Your task to perform on an android device: Search for acer predator on ebay, select the first entry, add it to the cart, then select checkout. Image 0: 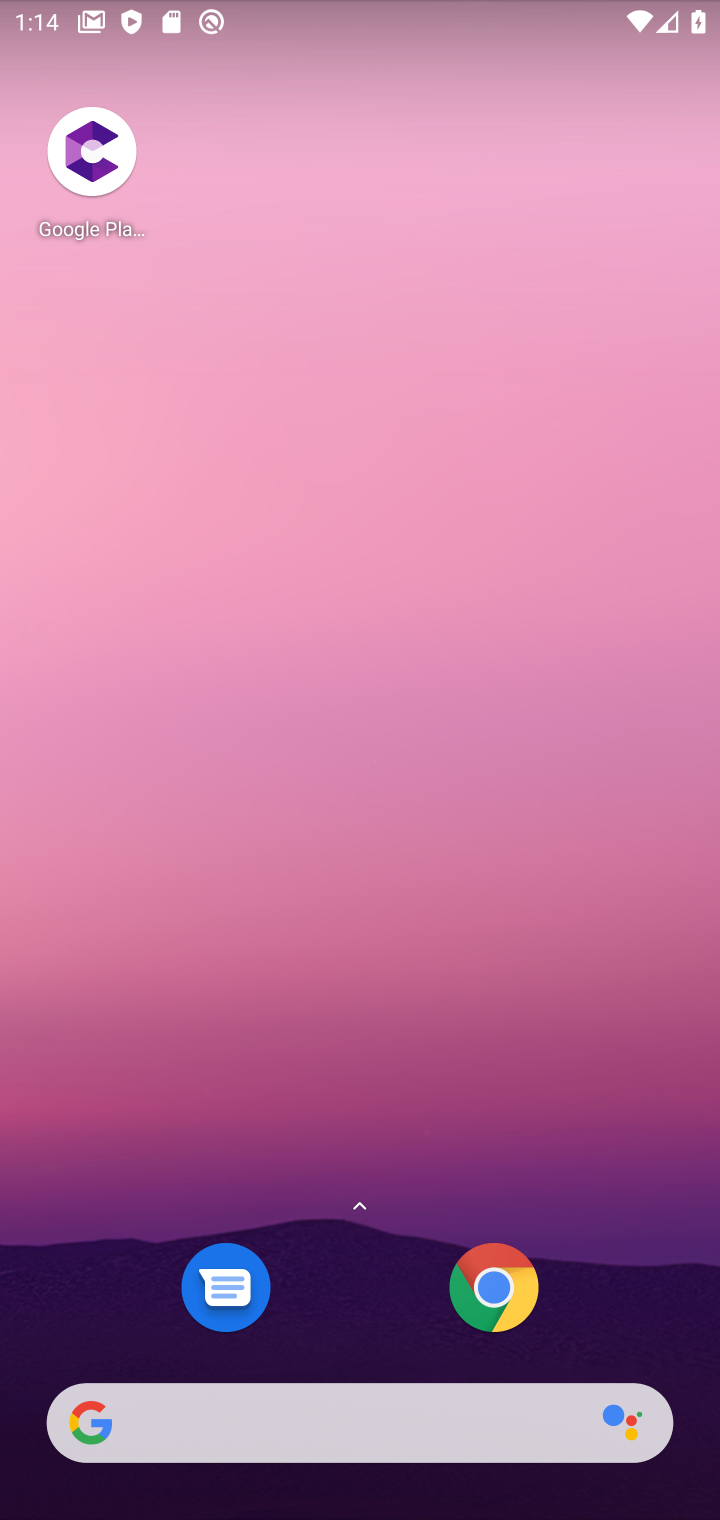
Step 0: drag from (361, 1348) to (280, 222)
Your task to perform on an android device: Search for acer predator on ebay, select the first entry, add it to the cart, then select checkout. Image 1: 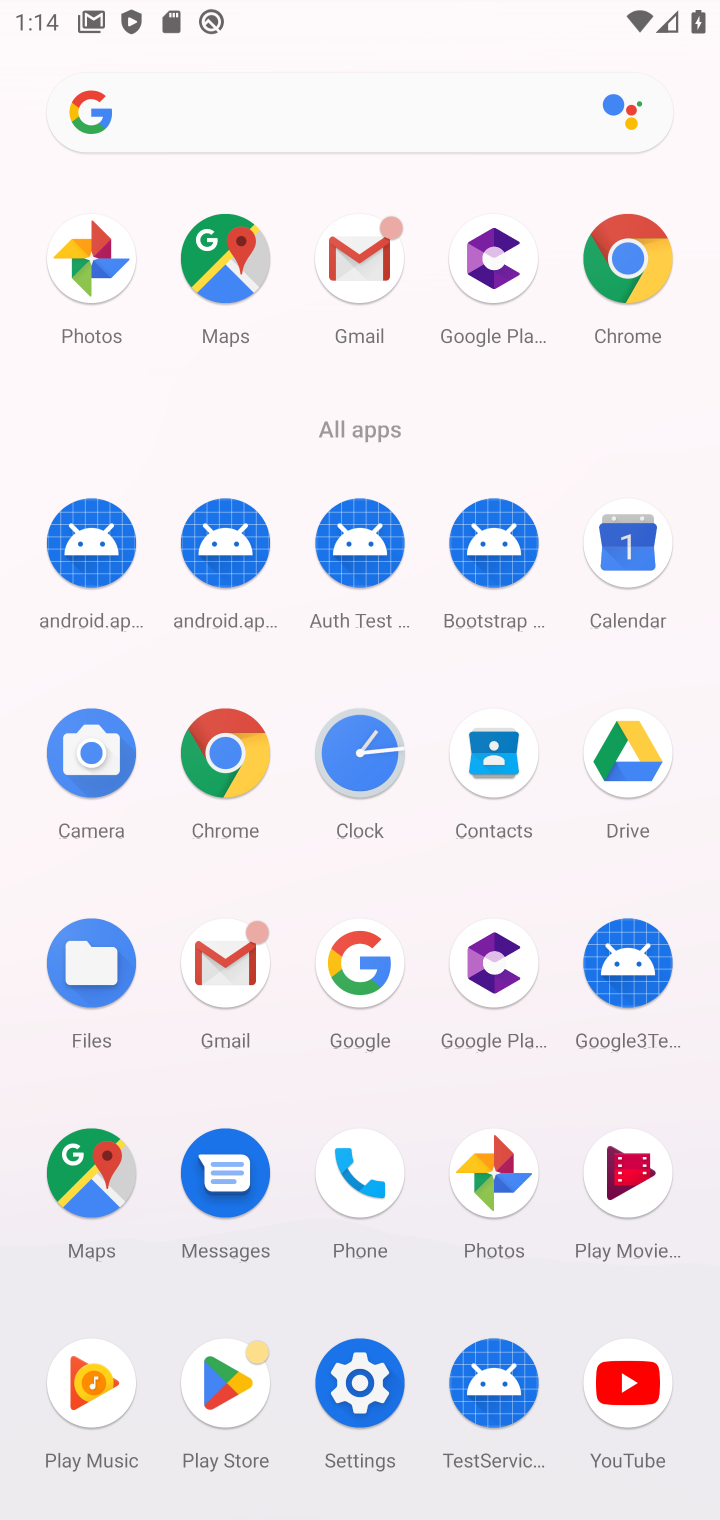
Step 1: click (627, 257)
Your task to perform on an android device: Search for acer predator on ebay, select the first entry, add it to the cart, then select checkout. Image 2: 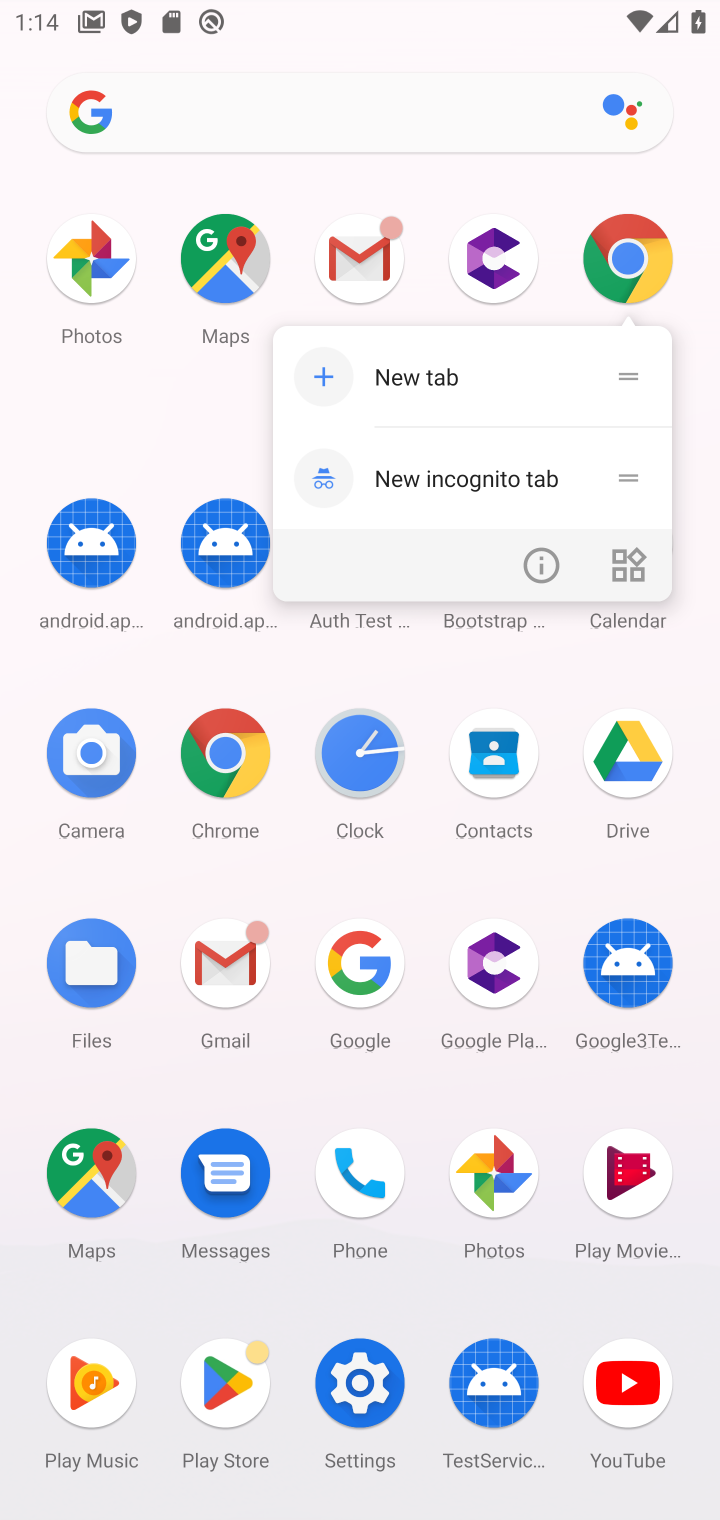
Step 2: click (611, 276)
Your task to perform on an android device: Search for acer predator on ebay, select the first entry, add it to the cart, then select checkout. Image 3: 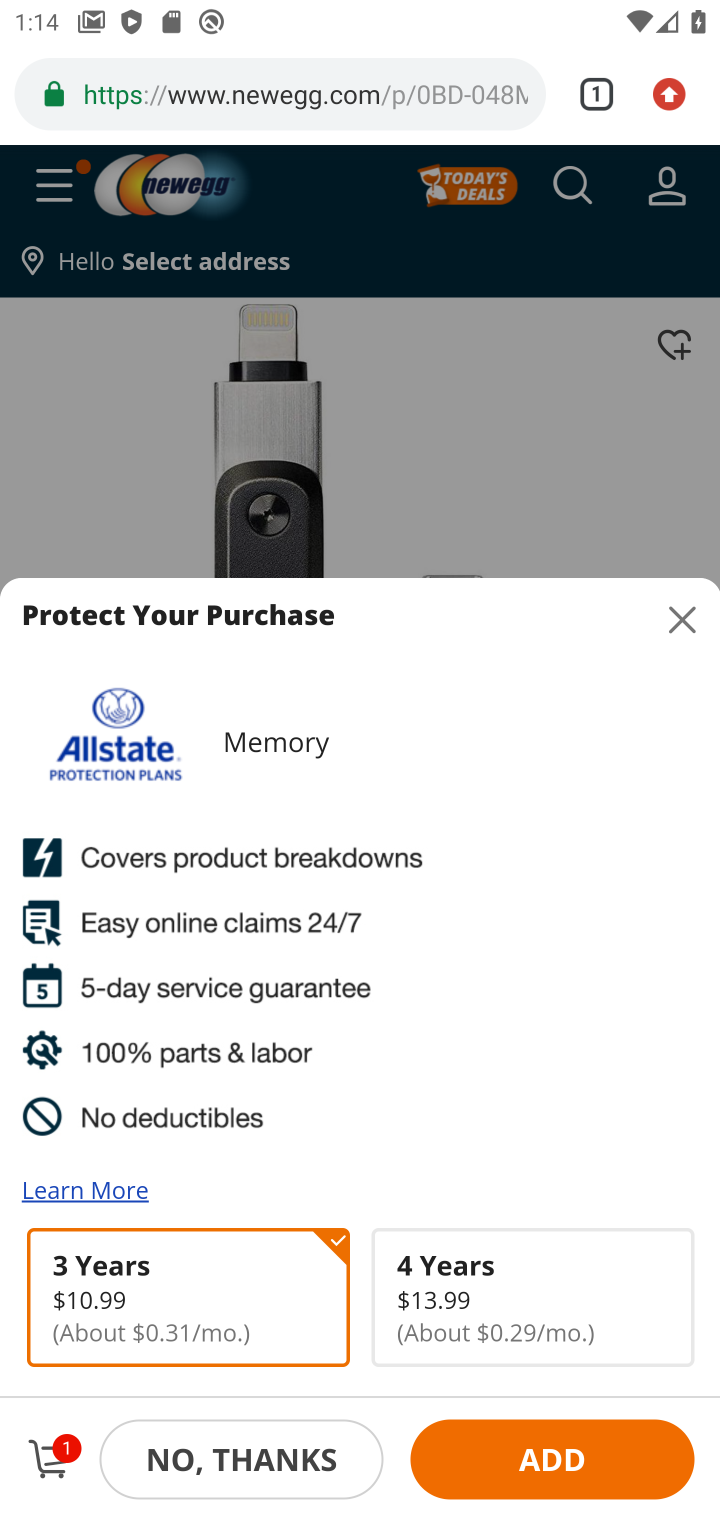
Step 3: click (255, 103)
Your task to perform on an android device: Search for acer predator on ebay, select the first entry, add it to the cart, then select checkout. Image 4: 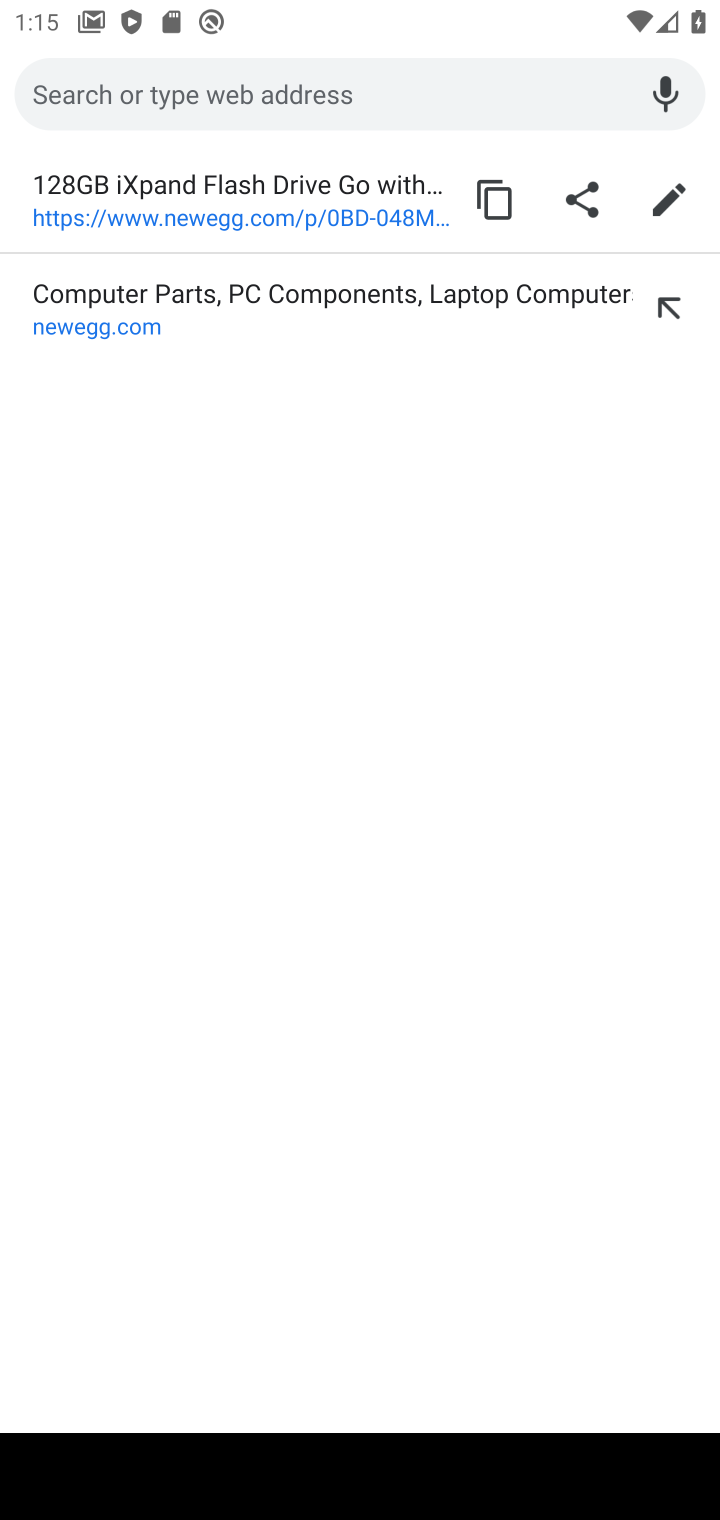
Step 4: type "ebay.com"
Your task to perform on an android device: Search for acer predator on ebay, select the first entry, add it to the cart, then select checkout. Image 5: 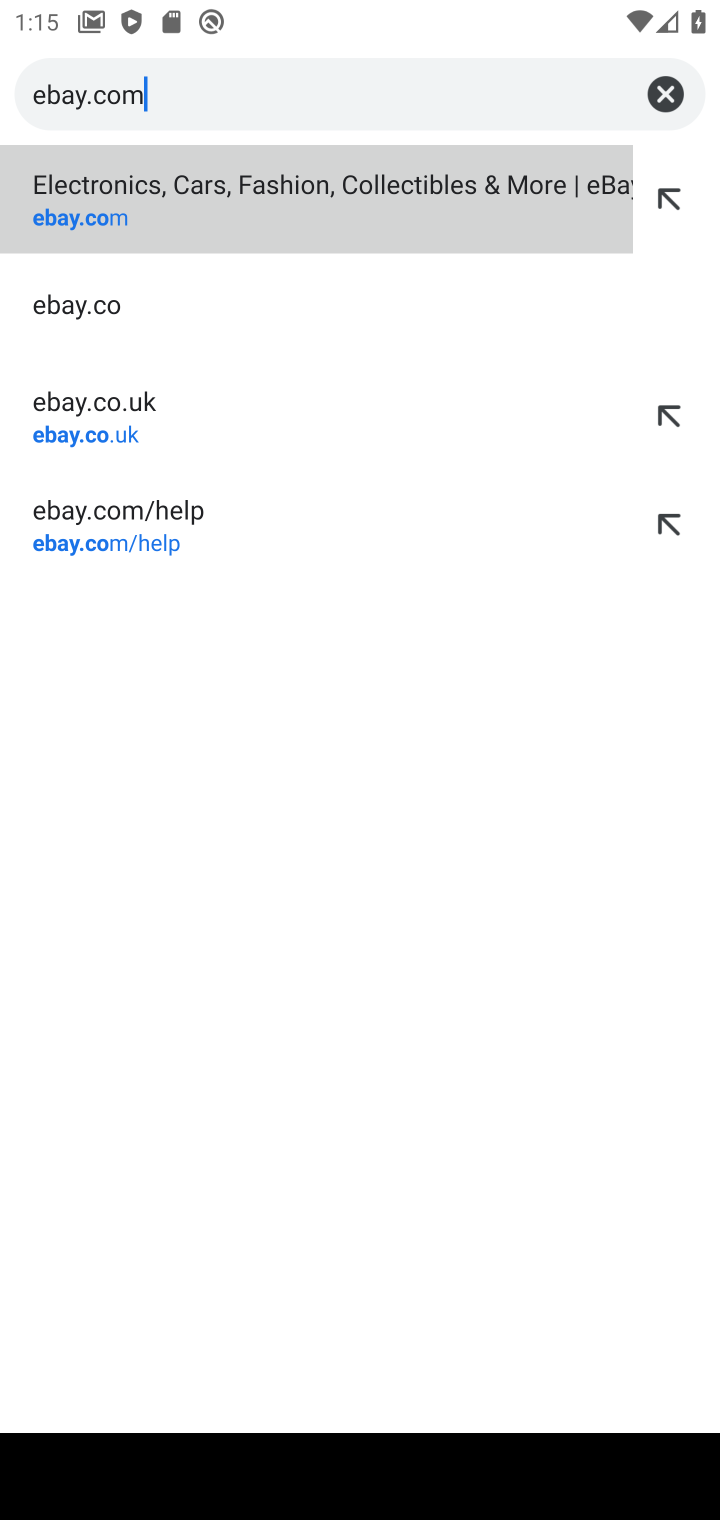
Step 5: press enter
Your task to perform on an android device: Search for acer predator on ebay, select the first entry, add it to the cart, then select checkout. Image 6: 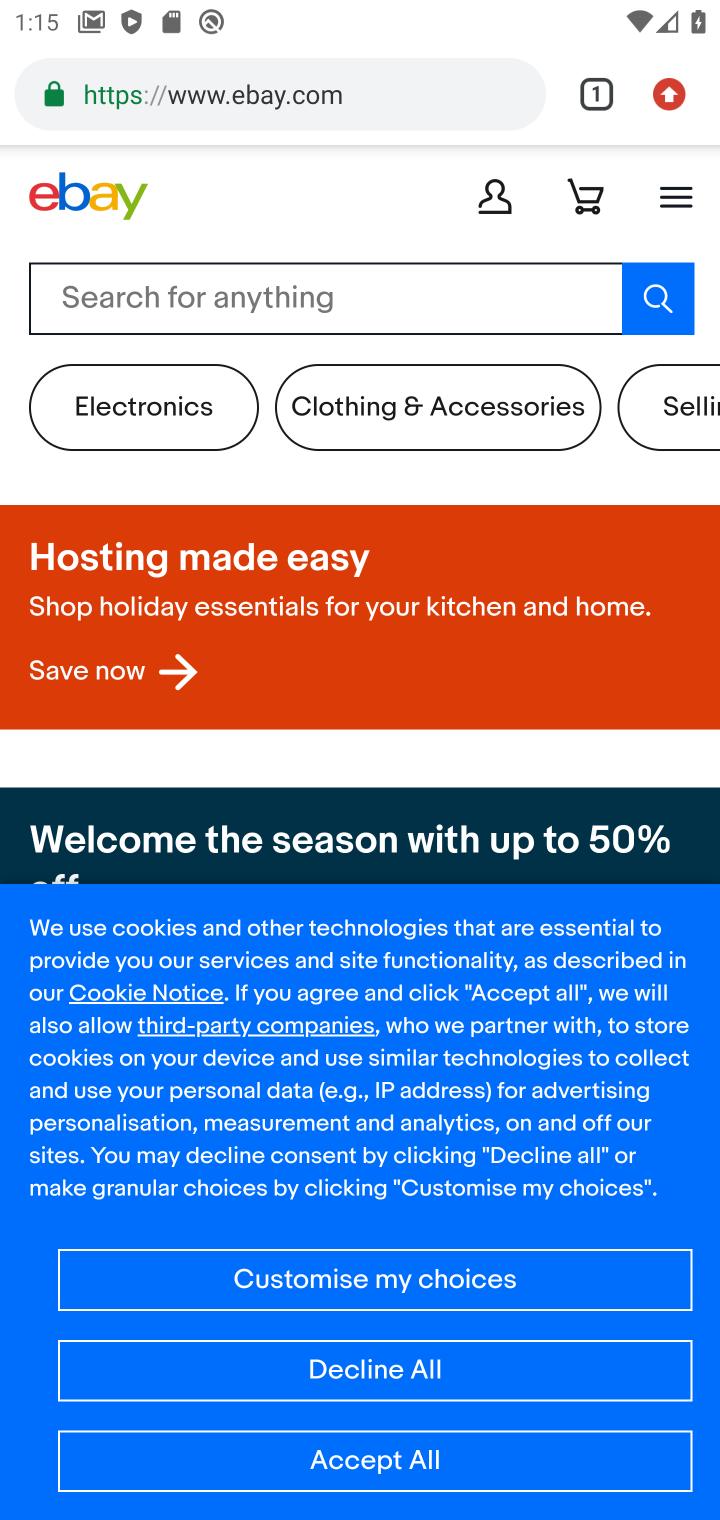
Step 6: click (402, 281)
Your task to perform on an android device: Search for acer predator on ebay, select the first entry, add it to the cart, then select checkout. Image 7: 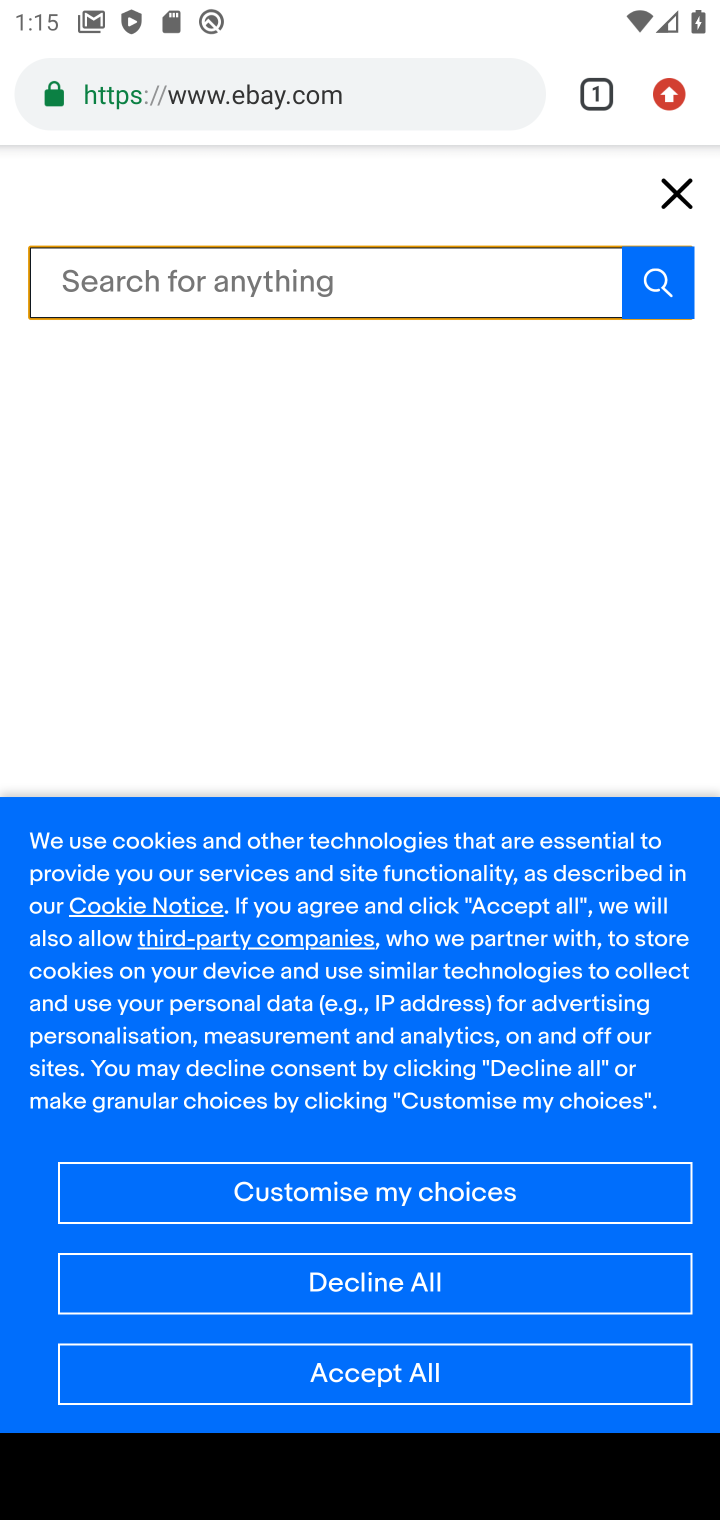
Step 7: type "acer predator"
Your task to perform on an android device: Search for acer predator on ebay, select the first entry, add it to the cart, then select checkout. Image 8: 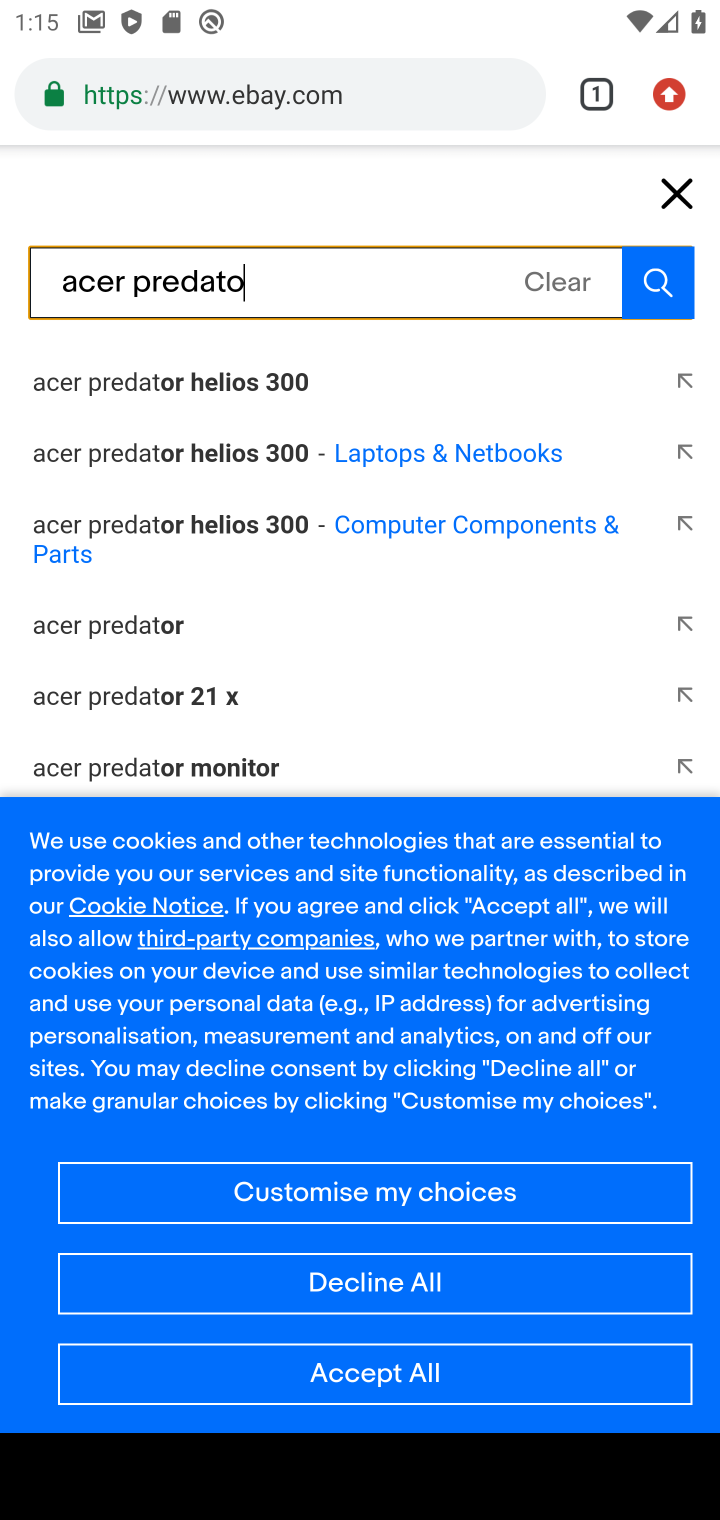
Step 8: press enter
Your task to perform on an android device: Search for acer predator on ebay, select the first entry, add it to the cart, then select checkout. Image 9: 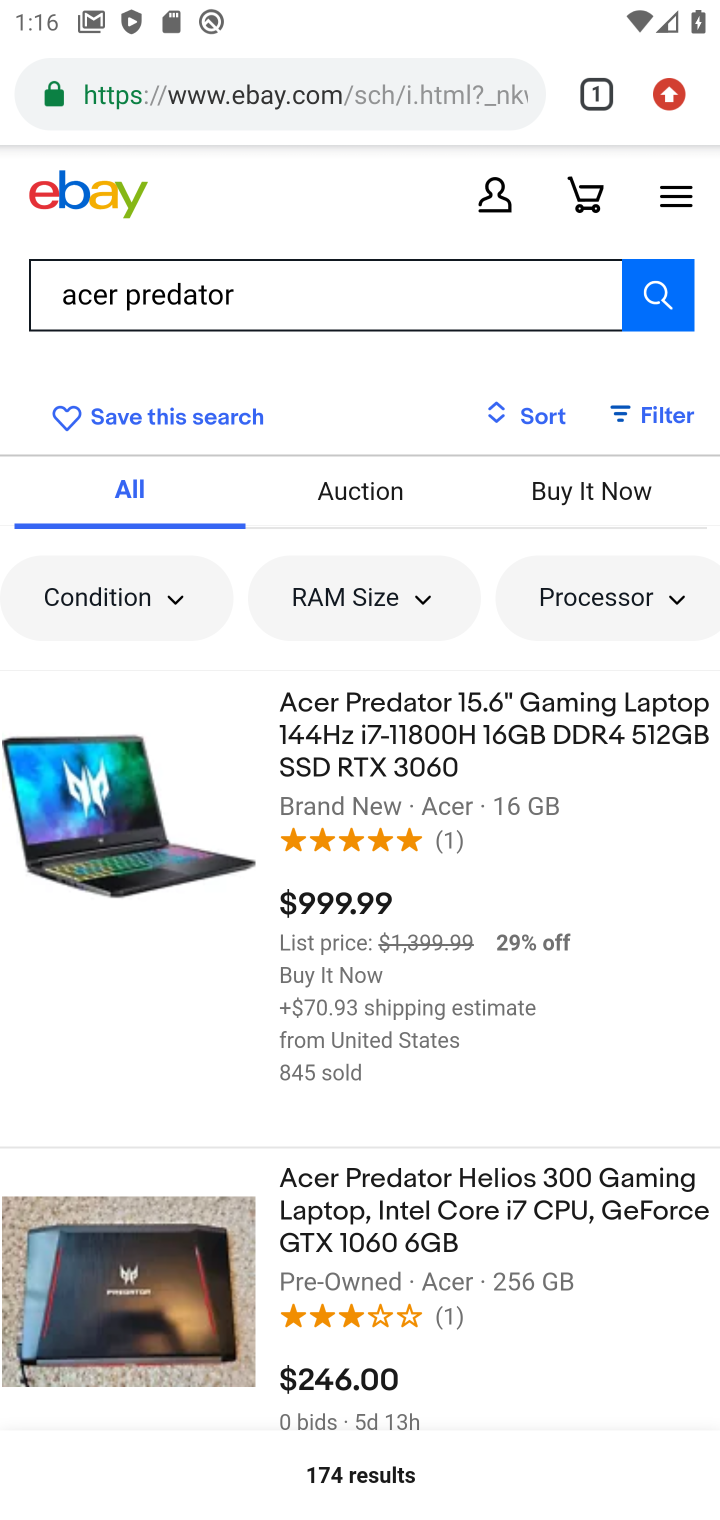
Step 9: click (176, 834)
Your task to perform on an android device: Search for acer predator on ebay, select the first entry, add it to the cart, then select checkout. Image 10: 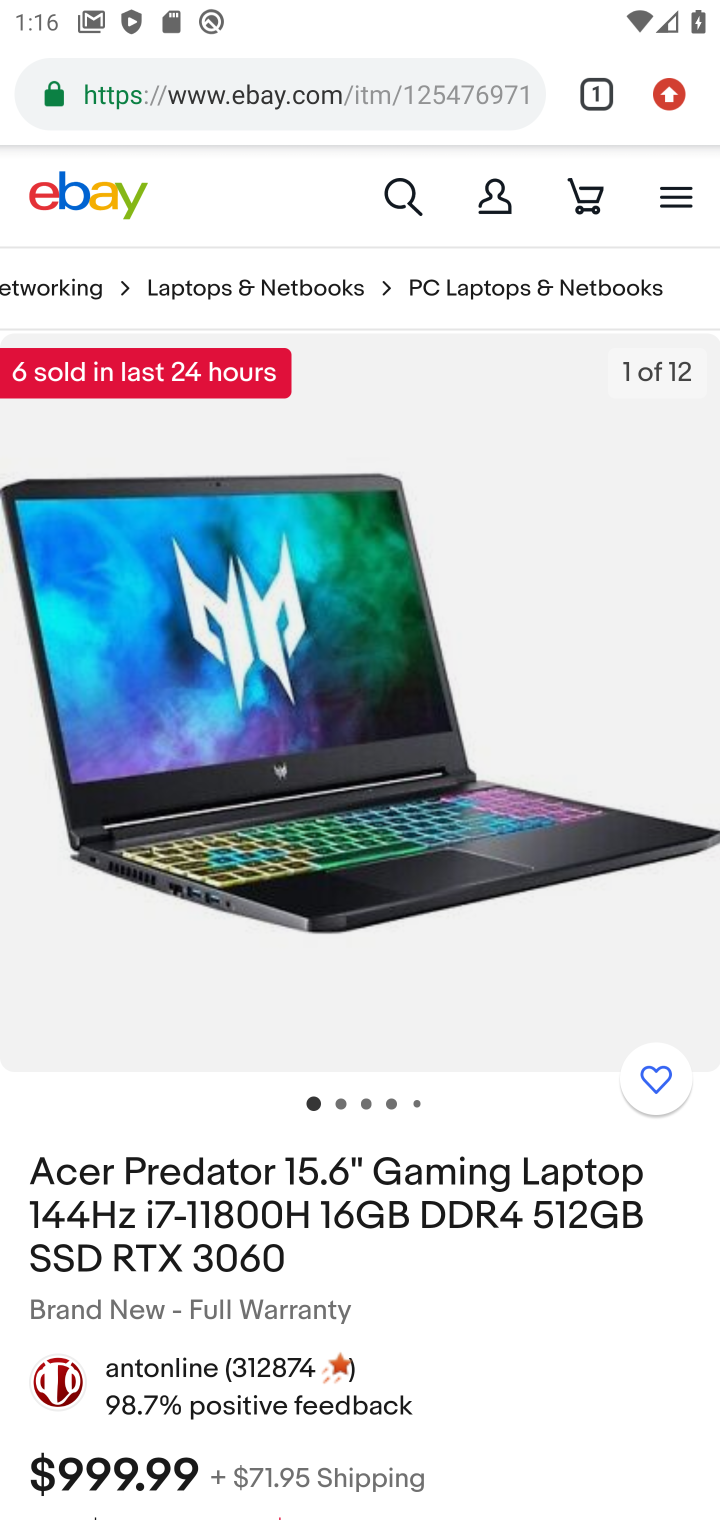
Step 10: drag from (307, 951) to (478, 394)
Your task to perform on an android device: Search for acer predator on ebay, select the first entry, add it to the cart, then select checkout. Image 11: 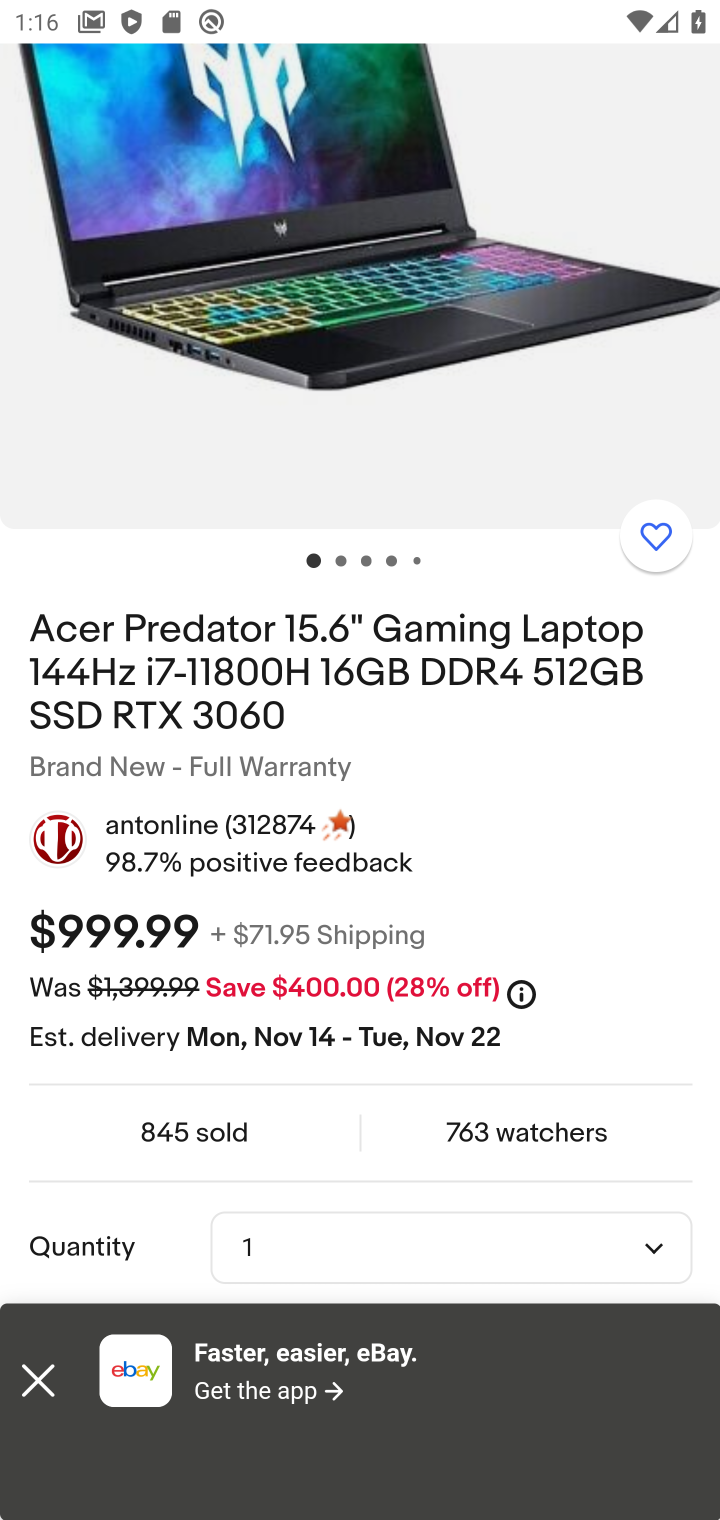
Step 11: drag from (180, 1167) to (304, 444)
Your task to perform on an android device: Search for acer predator on ebay, select the first entry, add it to the cart, then select checkout. Image 12: 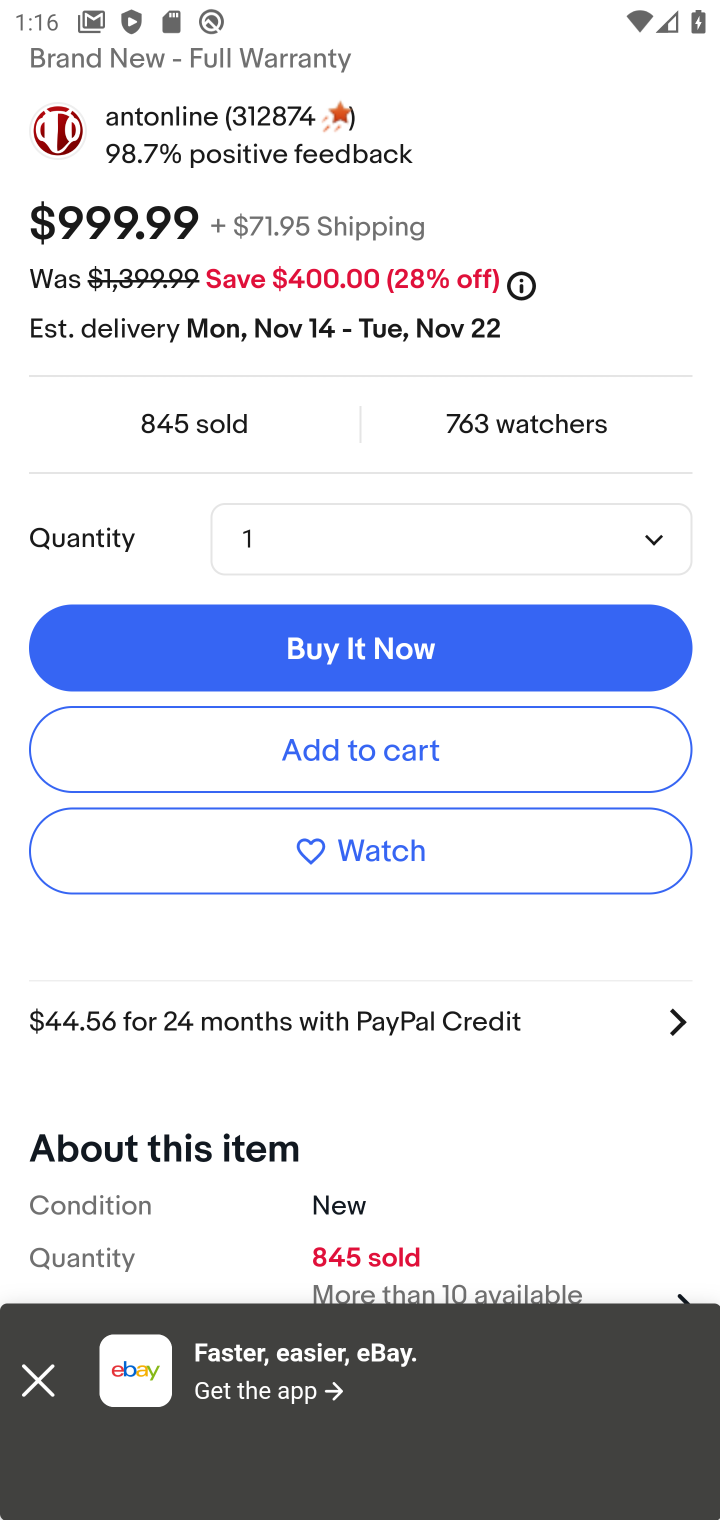
Step 12: click (376, 760)
Your task to perform on an android device: Search for acer predator on ebay, select the first entry, add it to the cart, then select checkout. Image 13: 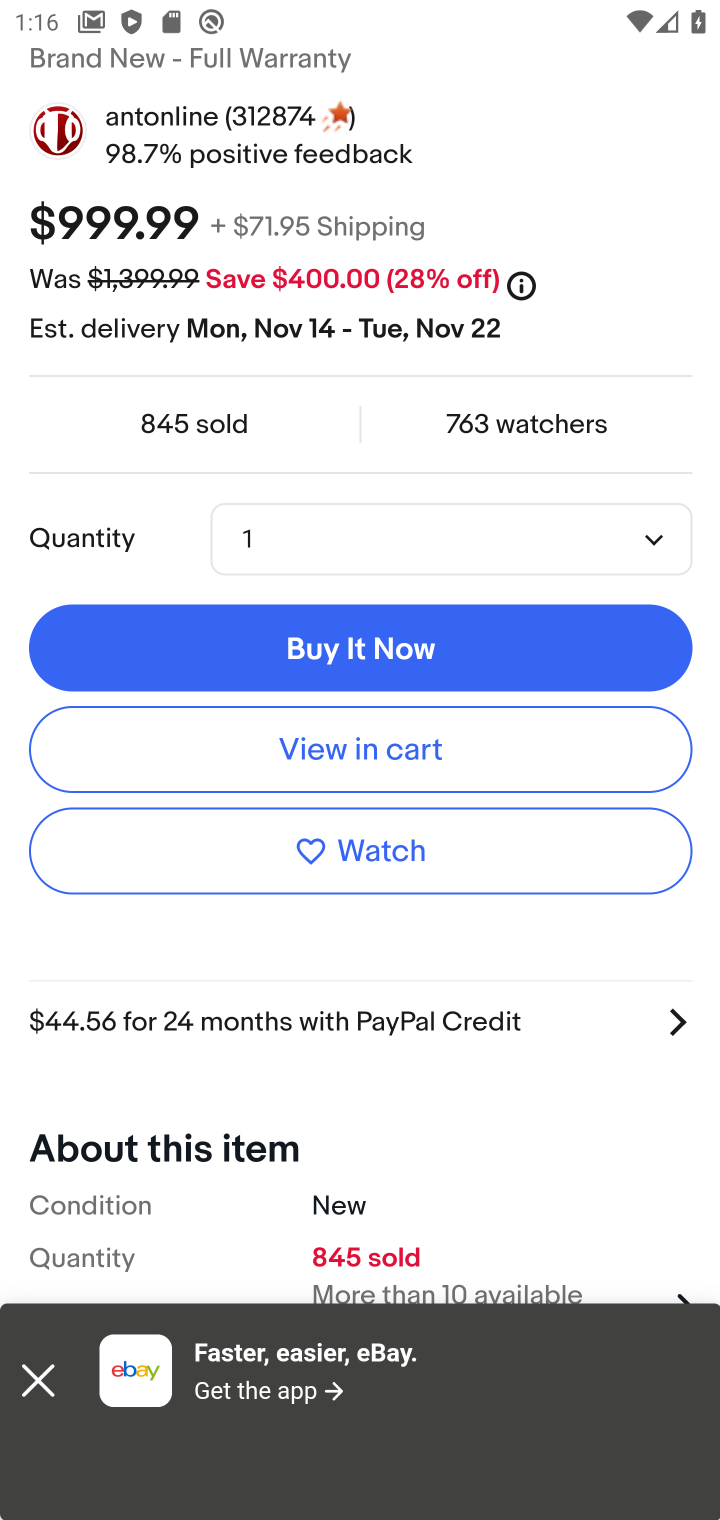
Step 13: click (357, 750)
Your task to perform on an android device: Search for acer predator on ebay, select the first entry, add it to the cart, then select checkout. Image 14: 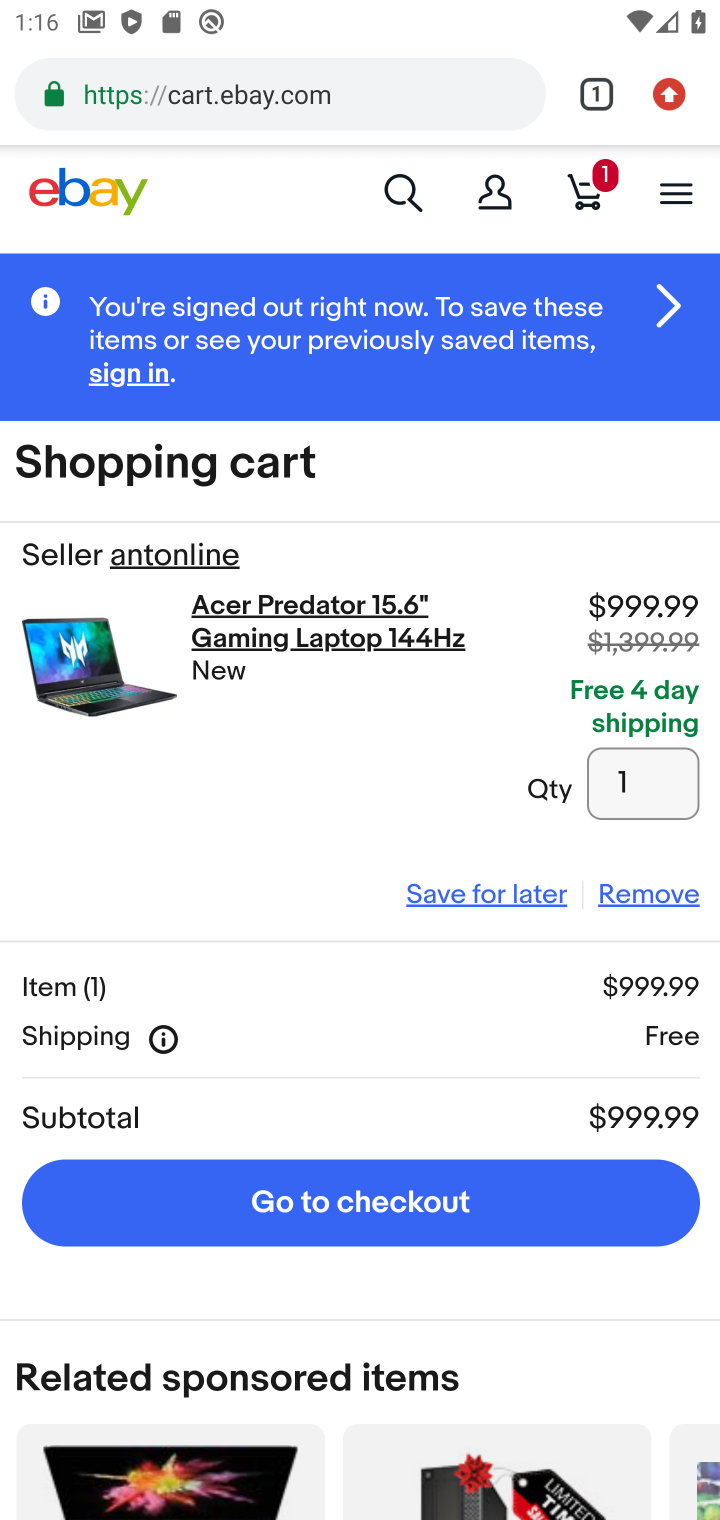
Step 14: click (479, 1169)
Your task to perform on an android device: Search for acer predator on ebay, select the first entry, add it to the cart, then select checkout. Image 15: 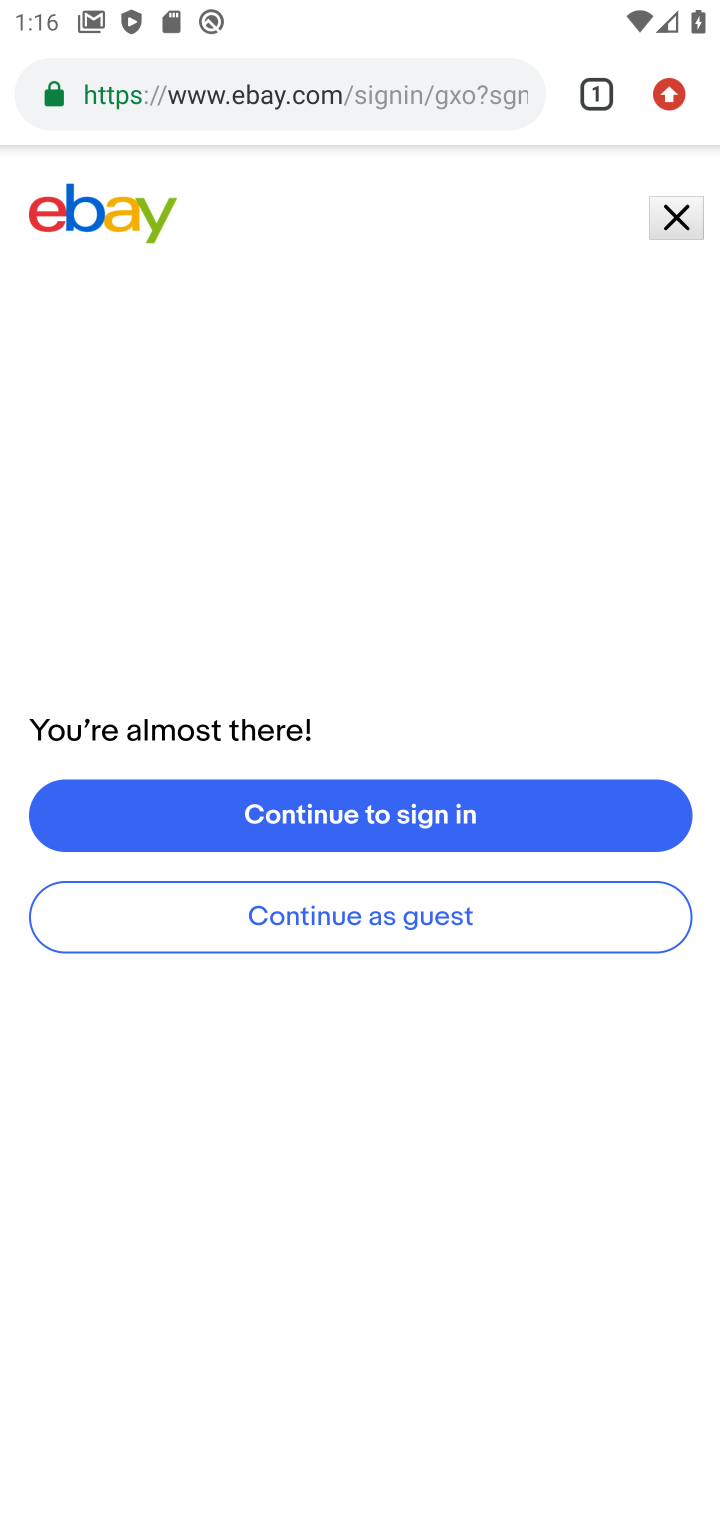
Step 15: task complete